Your task to perform on an android device: Go to battery settings Image 0: 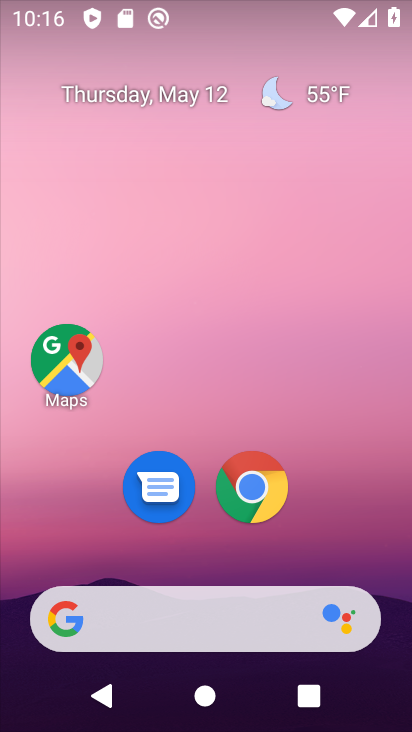
Step 0: drag from (361, 560) to (347, 38)
Your task to perform on an android device: Go to battery settings Image 1: 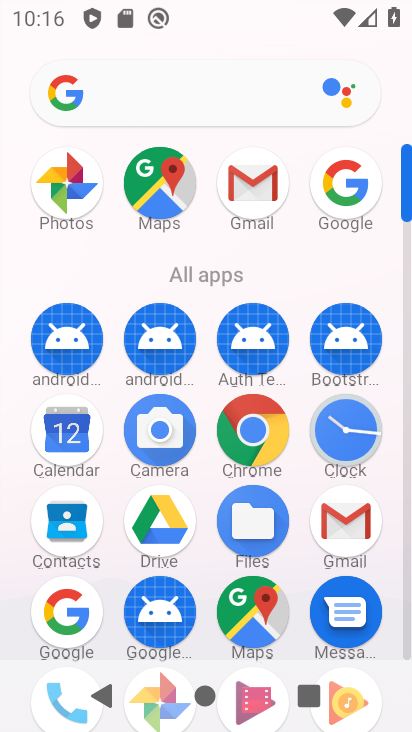
Step 1: drag from (407, 500) to (407, 454)
Your task to perform on an android device: Go to battery settings Image 2: 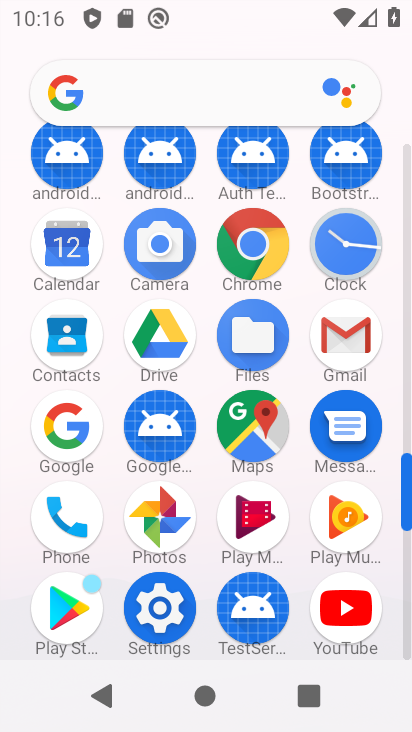
Step 2: click (163, 607)
Your task to perform on an android device: Go to battery settings Image 3: 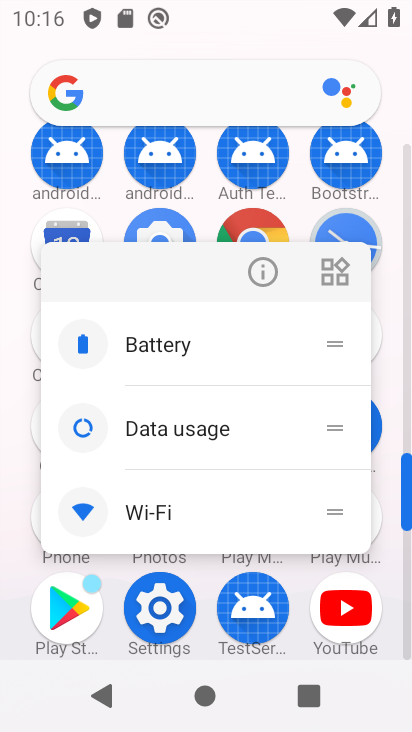
Step 3: click (163, 607)
Your task to perform on an android device: Go to battery settings Image 4: 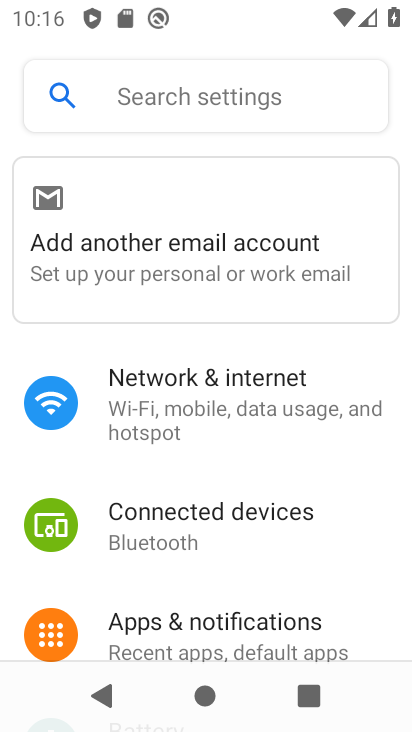
Step 4: drag from (371, 586) to (352, 160)
Your task to perform on an android device: Go to battery settings Image 5: 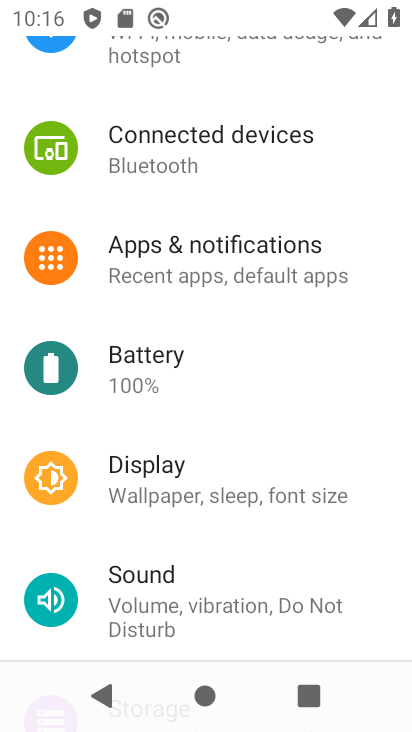
Step 5: click (127, 384)
Your task to perform on an android device: Go to battery settings Image 6: 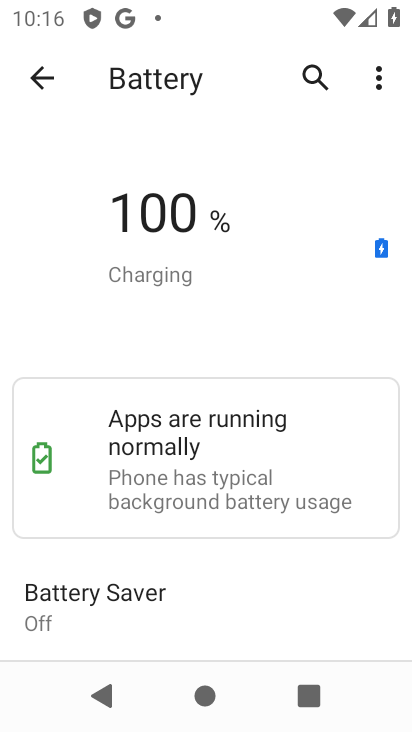
Step 6: task complete